Your task to perform on an android device: Play the last video I watched on Youtube Image 0: 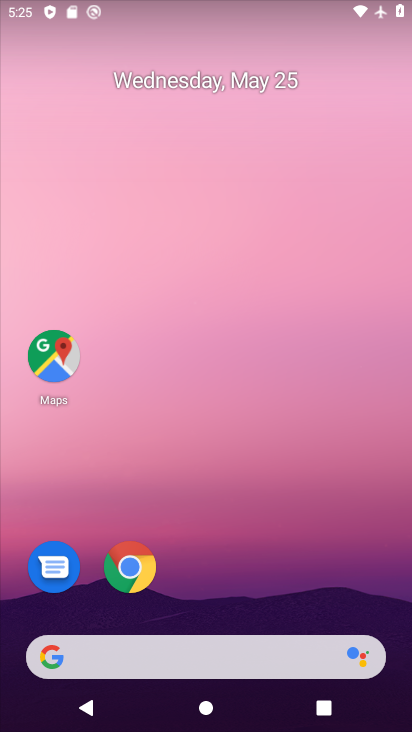
Step 0: drag from (278, 561) to (224, 15)
Your task to perform on an android device: Play the last video I watched on Youtube Image 1: 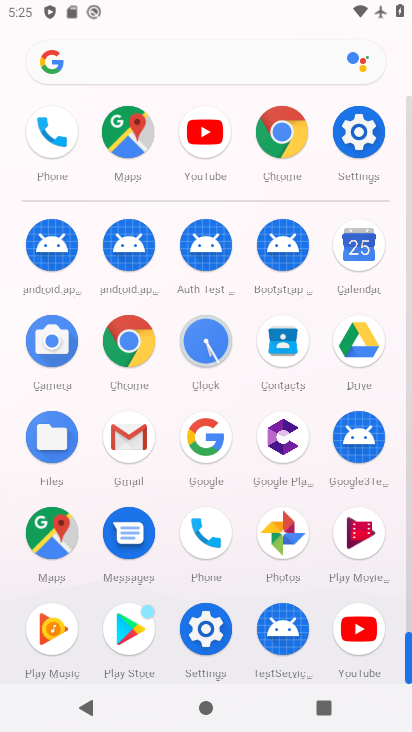
Step 1: drag from (0, 579) to (13, 276)
Your task to perform on an android device: Play the last video I watched on Youtube Image 2: 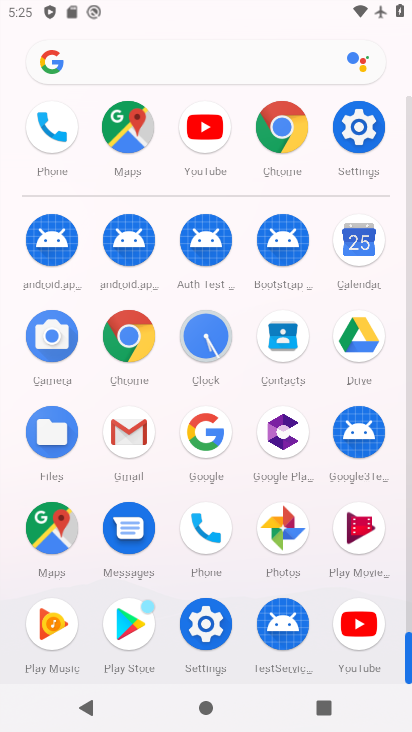
Step 2: click (355, 620)
Your task to perform on an android device: Play the last video I watched on Youtube Image 3: 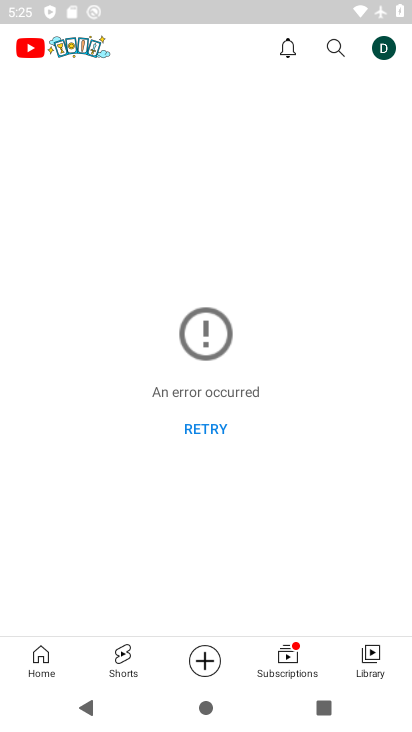
Step 3: click (385, 663)
Your task to perform on an android device: Play the last video I watched on Youtube Image 4: 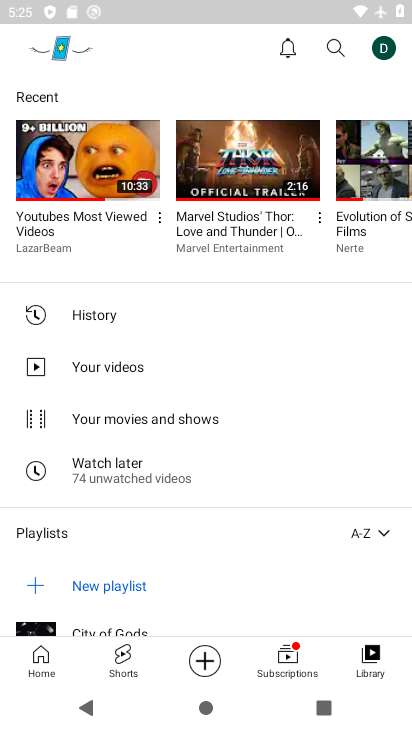
Step 4: click (67, 158)
Your task to perform on an android device: Play the last video I watched on Youtube Image 5: 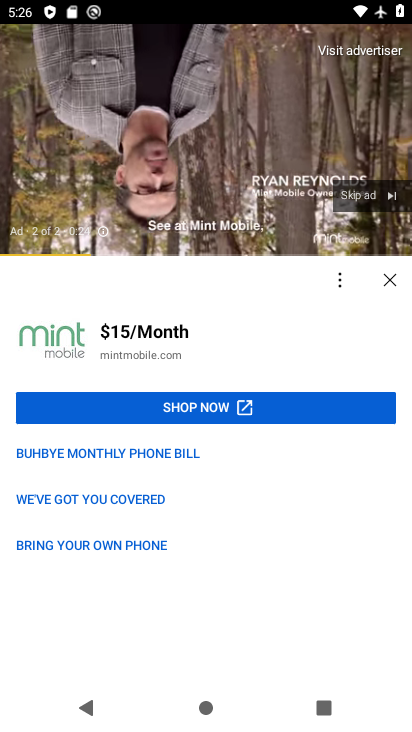
Step 5: click (353, 196)
Your task to perform on an android device: Play the last video I watched on Youtube Image 6: 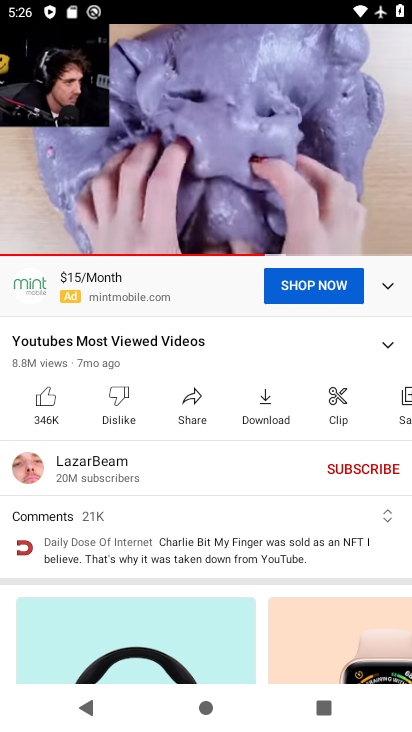
Step 6: task complete